Your task to perform on an android device: show emergency info Image 0: 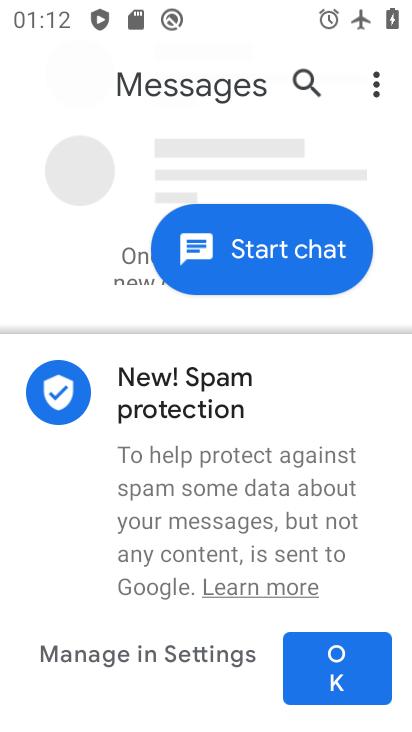
Step 0: press home button
Your task to perform on an android device: show emergency info Image 1: 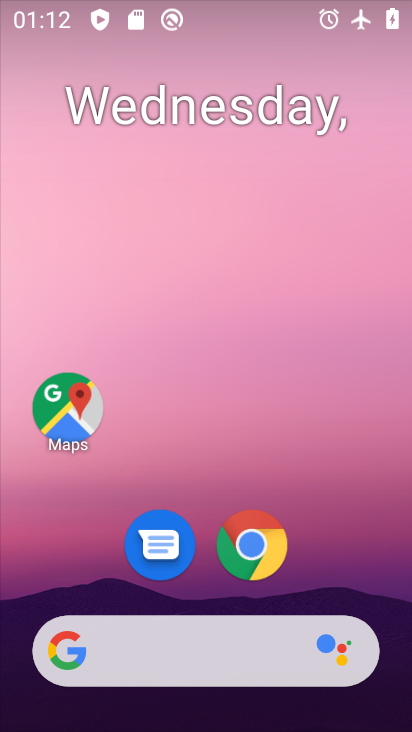
Step 1: drag from (308, 529) to (280, 144)
Your task to perform on an android device: show emergency info Image 2: 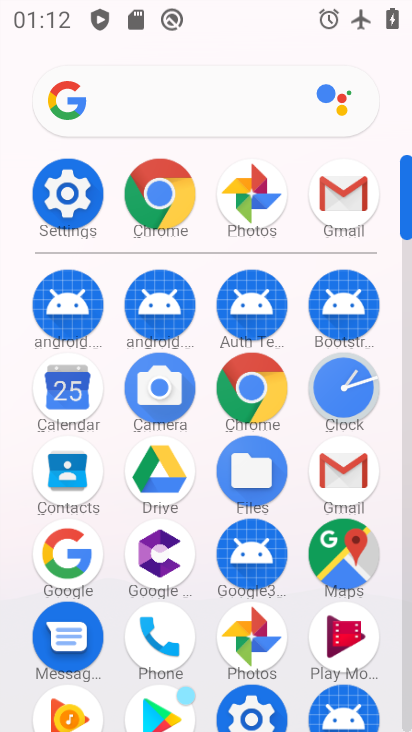
Step 2: click (78, 200)
Your task to perform on an android device: show emergency info Image 3: 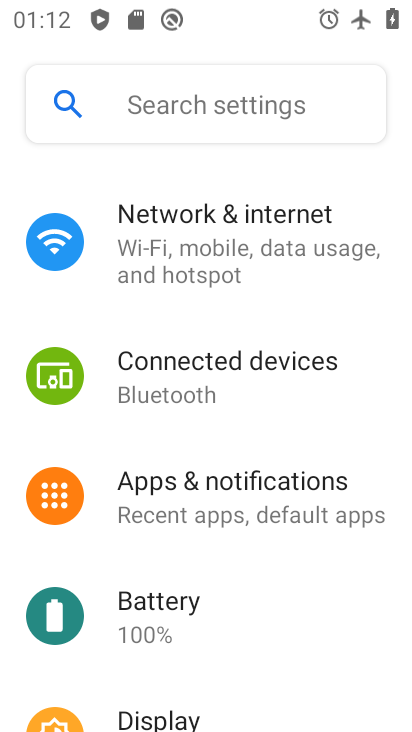
Step 3: drag from (206, 547) to (295, 23)
Your task to perform on an android device: show emergency info Image 4: 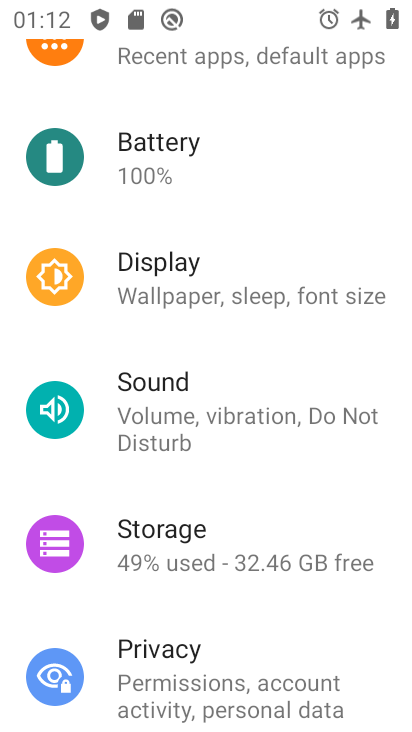
Step 4: drag from (222, 645) to (223, 186)
Your task to perform on an android device: show emergency info Image 5: 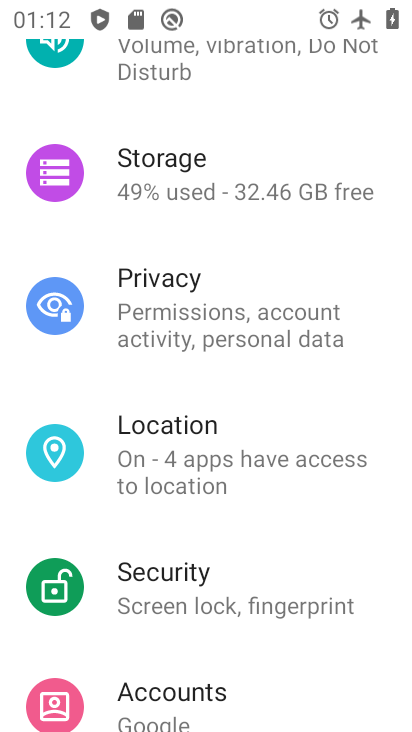
Step 5: drag from (190, 605) to (200, 143)
Your task to perform on an android device: show emergency info Image 6: 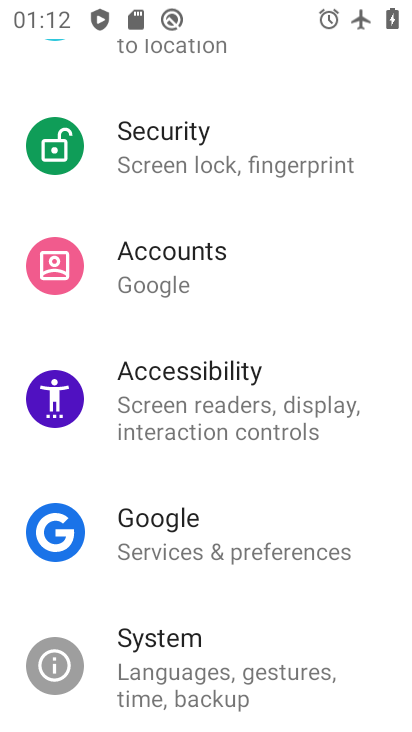
Step 6: drag from (159, 663) to (210, 217)
Your task to perform on an android device: show emergency info Image 7: 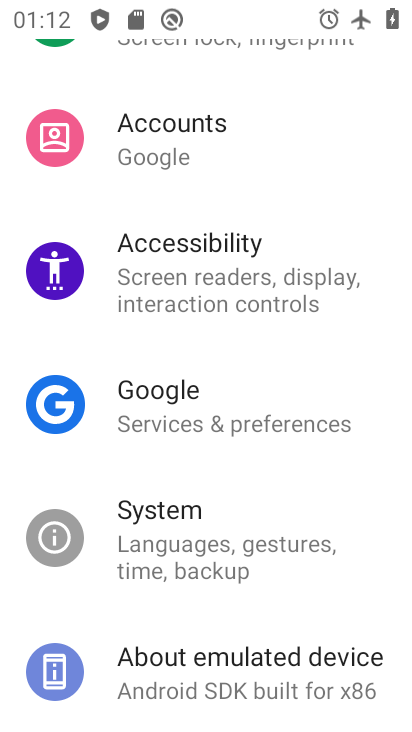
Step 7: click (189, 657)
Your task to perform on an android device: show emergency info Image 8: 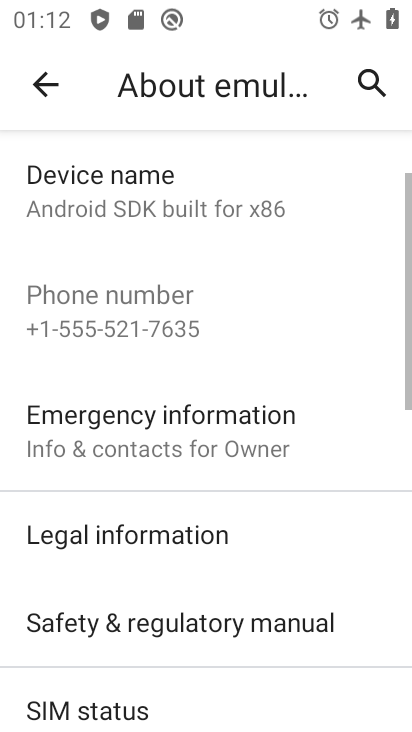
Step 8: click (208, 433)
Your task to perform on an android device: show emergency info Image 9: 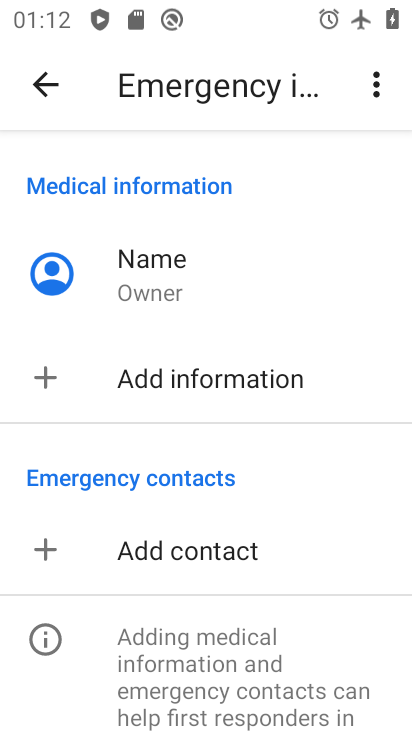
Step 9: task complete